Your task to perform on an android device: Search for Italian restaurants on Maps Image 0: 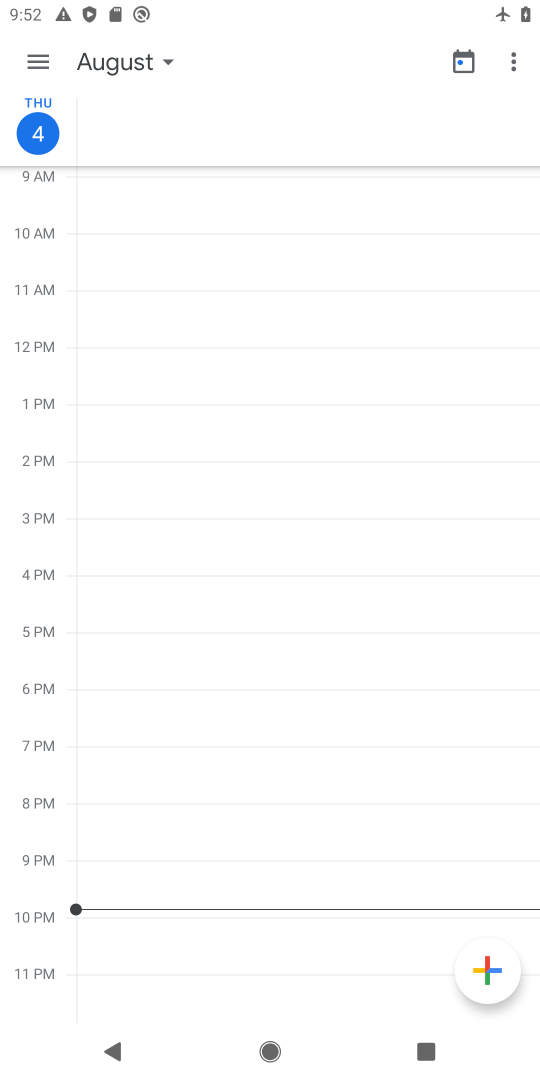
Step 0: press home button
Your task to perform on an android device: Search for Italian restaurants on Maps Image 1: 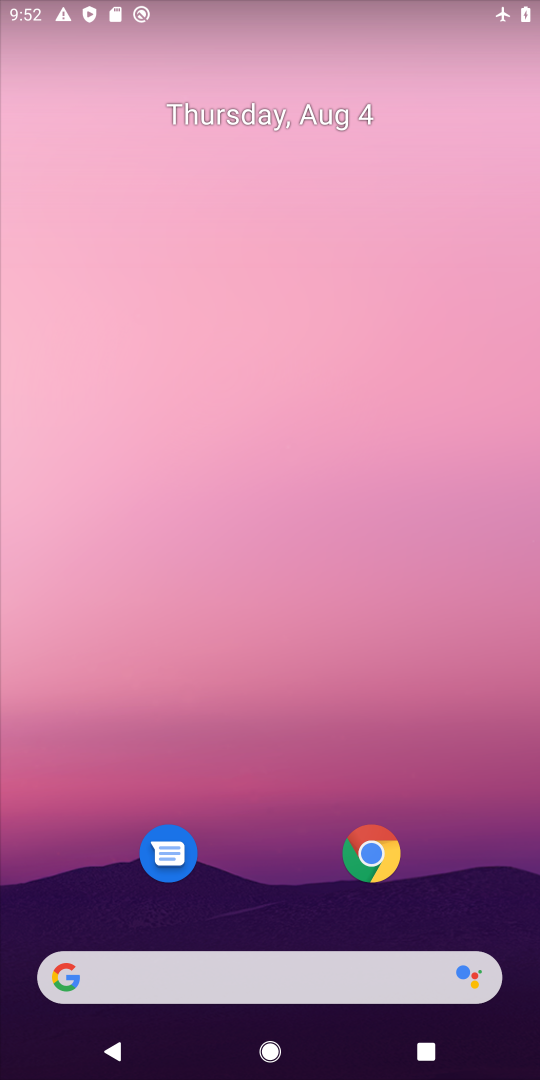
Step 1: drag from (240, 902) to (288, 27)
Your task to perform on an android device: Search for Italian restaurants on Maps Image 2: 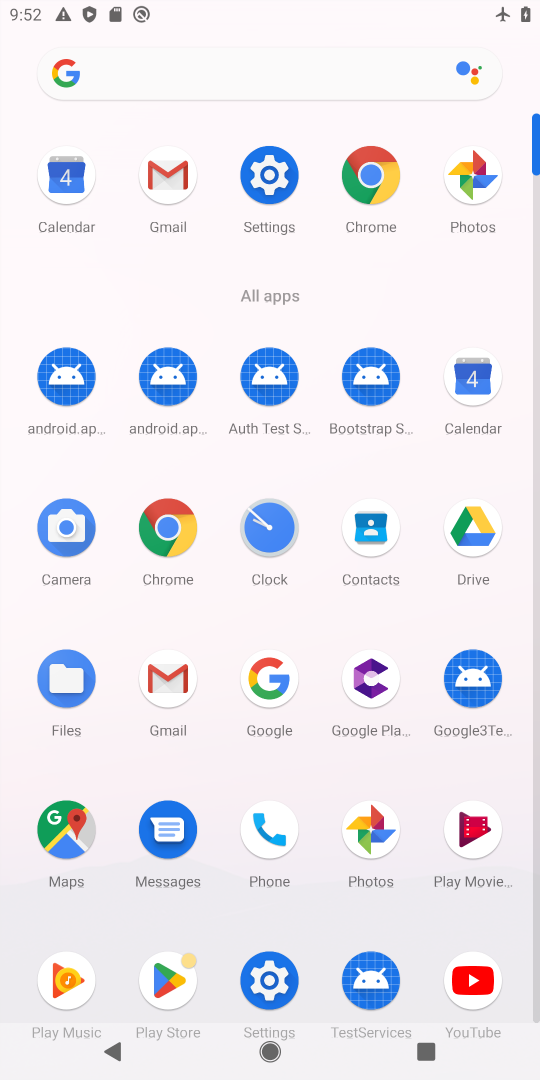
Step 2: click (63, 823)
Your task to perform on an android device: Search for Italian restaurants on Maps Image 3: 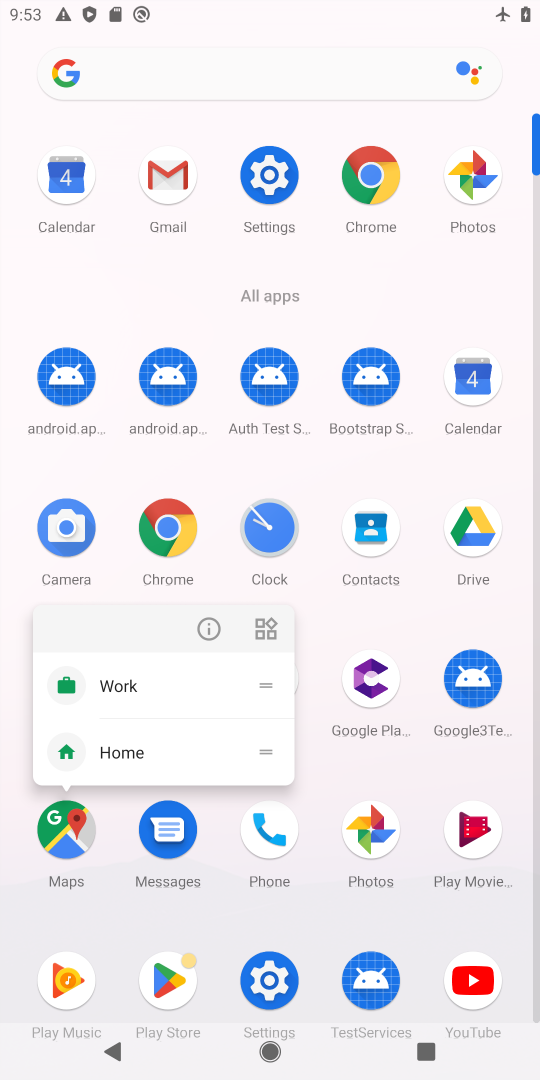
Step 3: click (62, 838)
Your task to perform on an android device: Search for Italian restaurants on Maps Image 4: 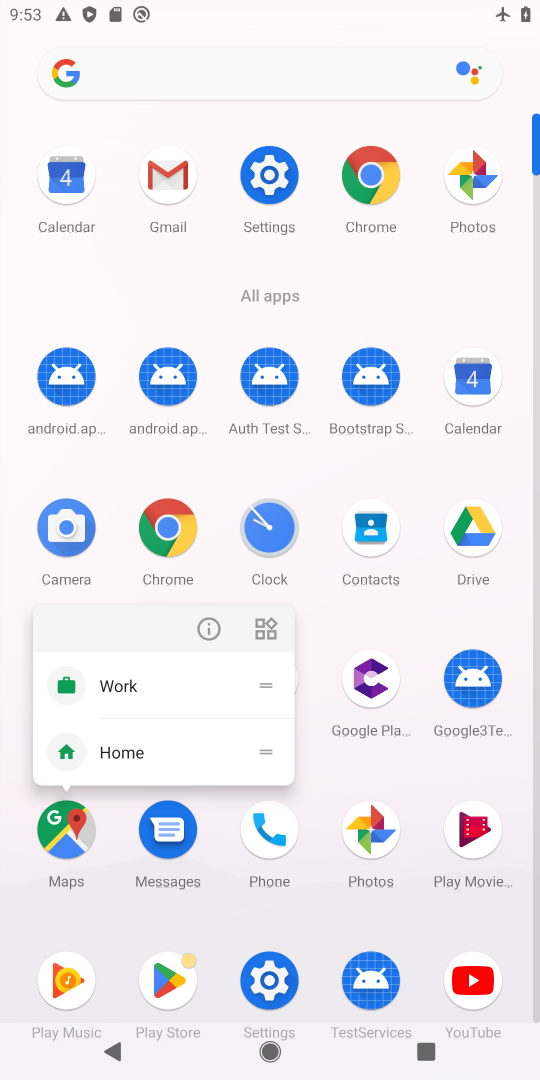
Step 4: click (60, 844)
Your task to perform on an android device: Search for Italian restaurants on Maps Image 5: 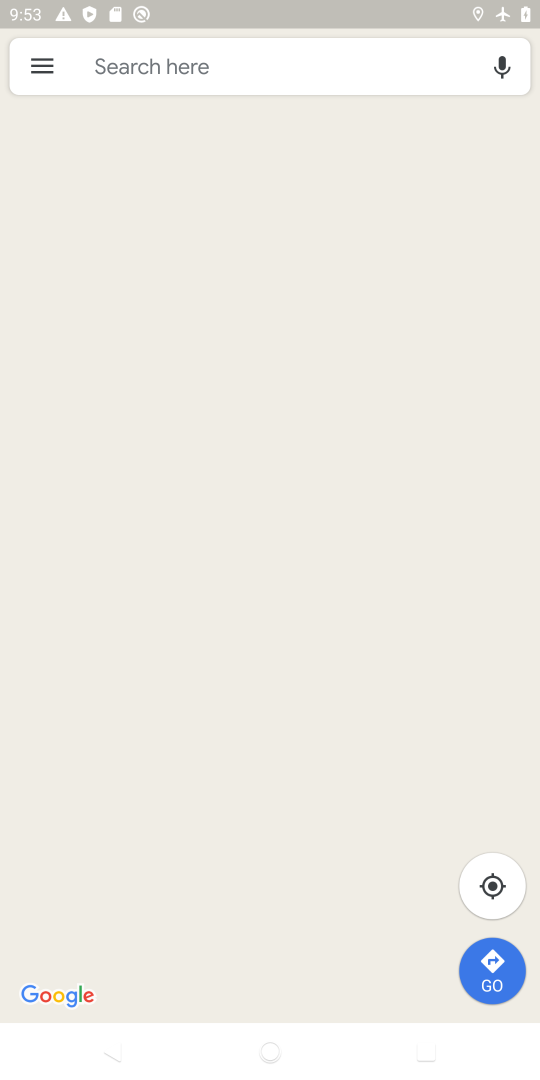
Step 5: click (211, 63)
Your task to perform on an android device: Search for Italian restaurants on Maps Image 6: 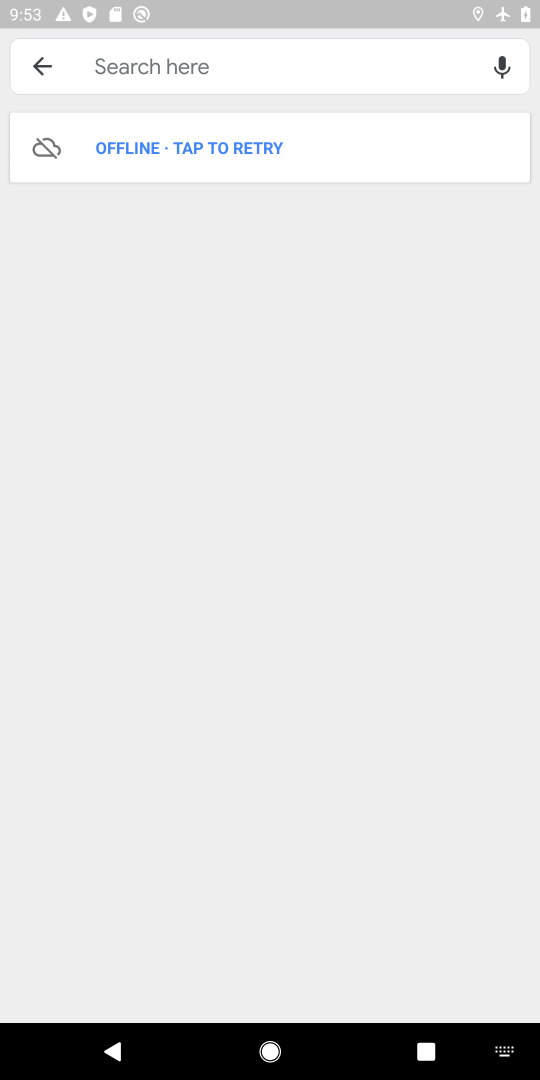
Step 6: type "italian restaurants"
Your task to perform on an android device: Search for Italian restaurants on Maps Image 7: 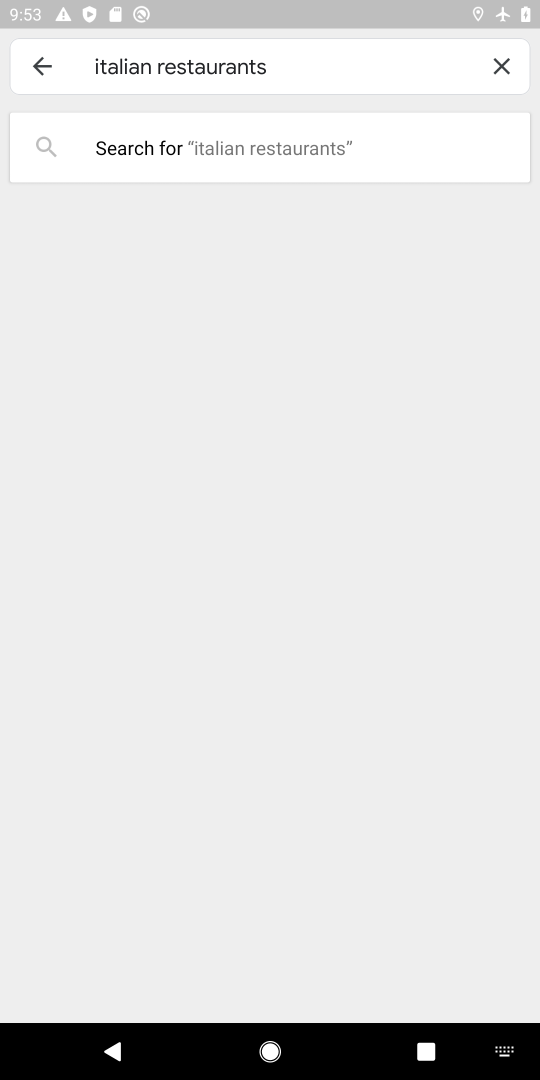
Step 7: click (284, 86)
Your task to perform on an android device: Search for Italian restaurants on Maps Image 8: 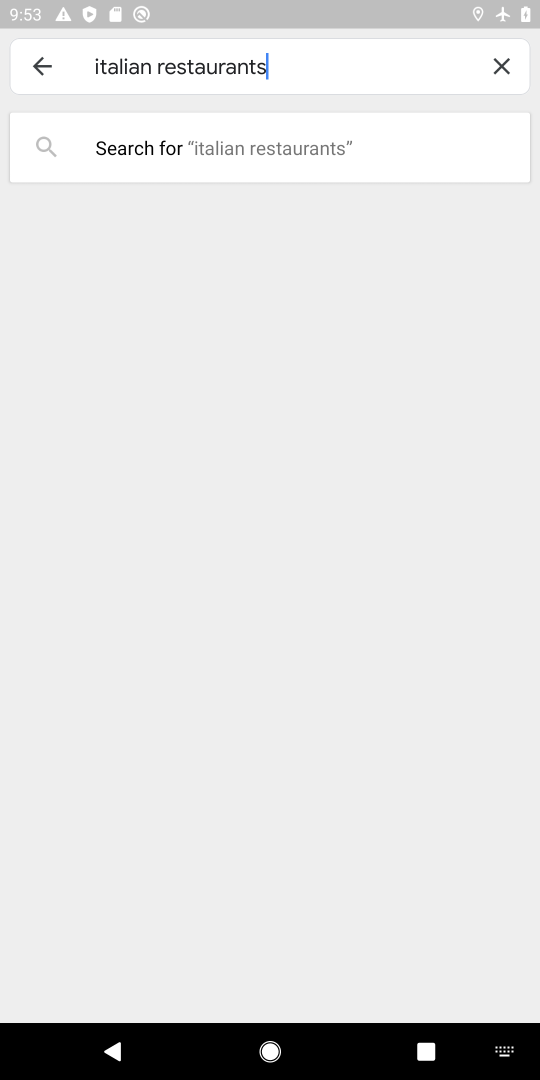
Step 8: click (305, 132)
Your task to perform on an android device: Search for Italian restaurants on Maps Image 9: 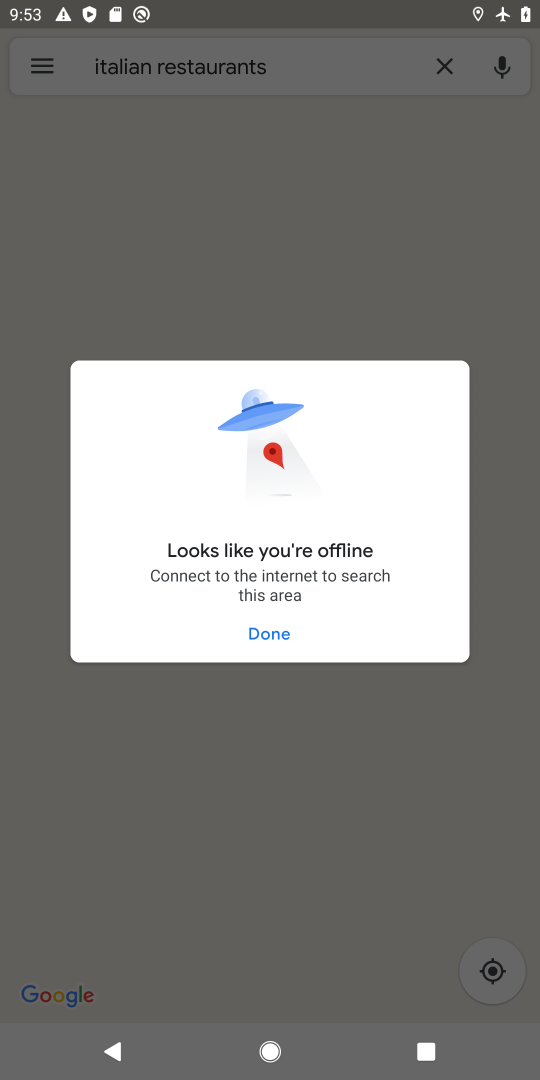
Step 9: task complete